Your task to perform on an android device: change text size in settings app Image 0: 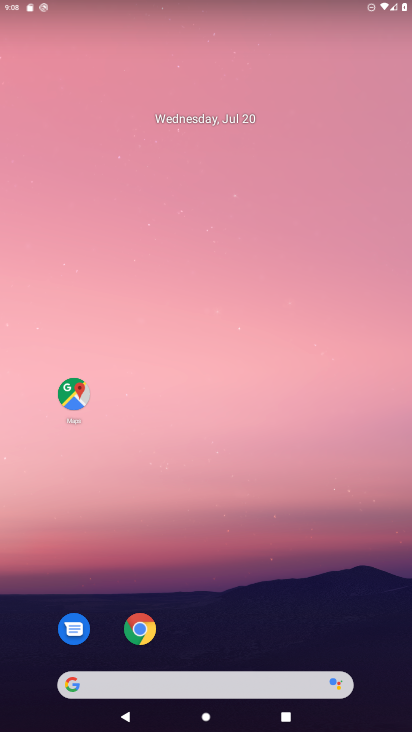
Step 0: drag from (381, 642) to (337, 135)
Your task to perform on an android device: change text size in settings app Image 1: 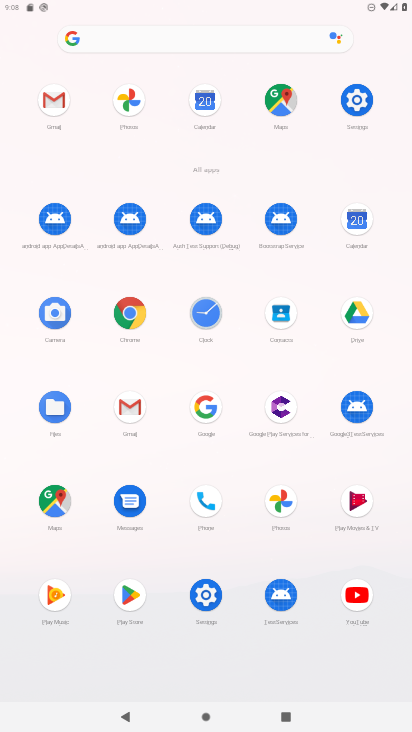
Step 1: click (205, 596)
Your task to perform on an android device: change text size in settings app Image 2: 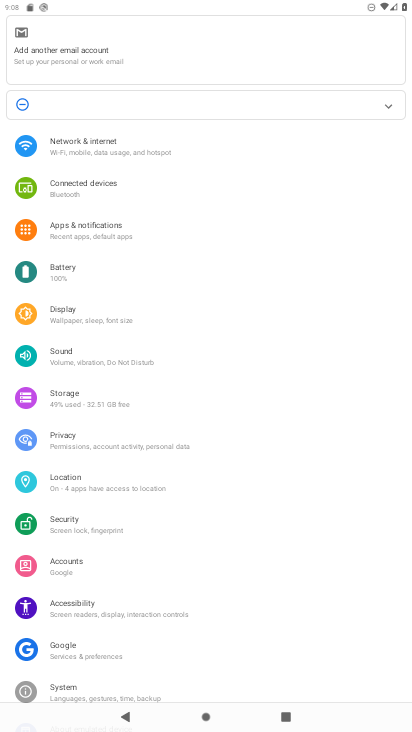
Step 2: click (61, 313)
Your task to perform on an android device: change text size in settings app Image 3: 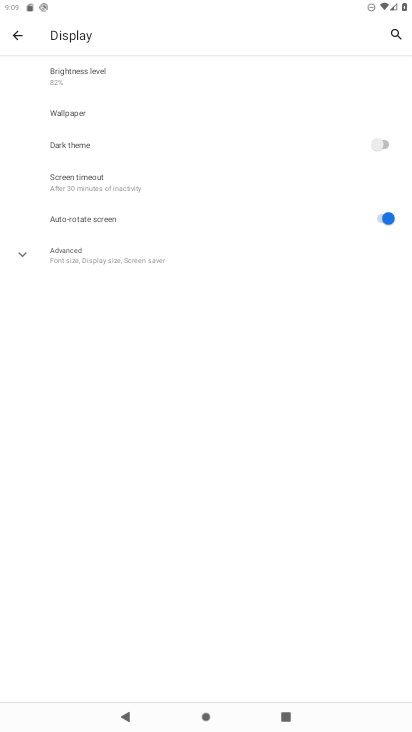
Step 3: click (31, 255)
Your task to perform on an android device: change text size in settings app Image 4: 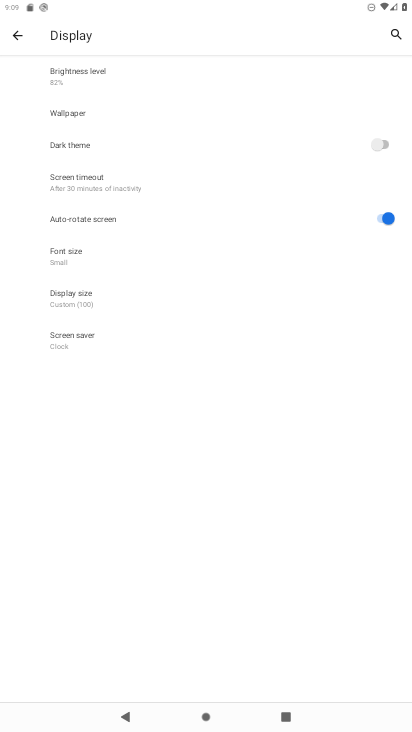
Step 4: click (71, 252)
Your task to perform on an android device: change text size in settings app Image 5: 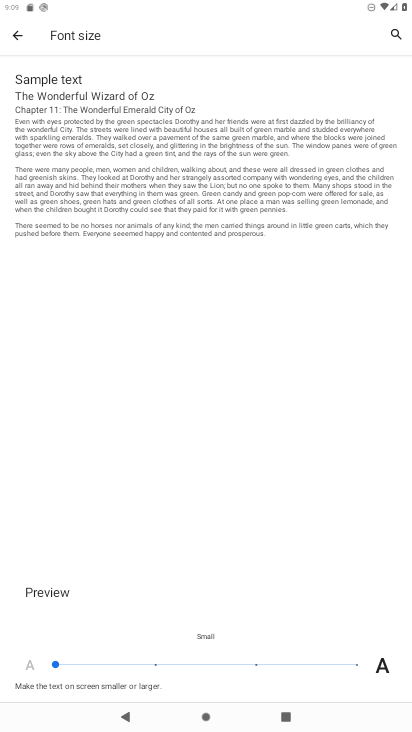
Step 5: click (353, 660)
Your task to perform on an android device: change text size in settings app Image 6: 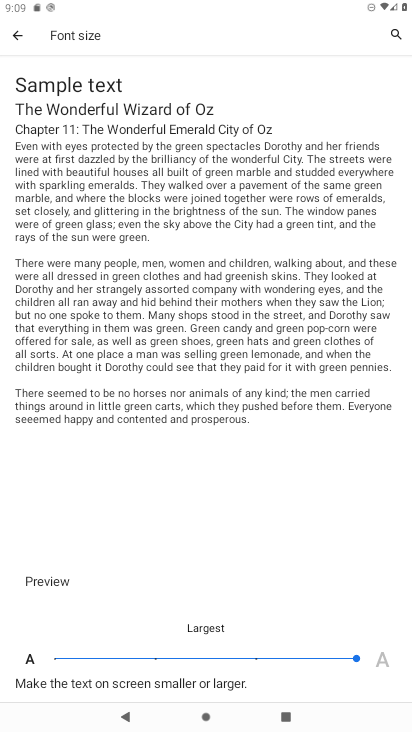
Step 6: task complete